Your task to perform on an android device: change the clock display to digital Image 0: 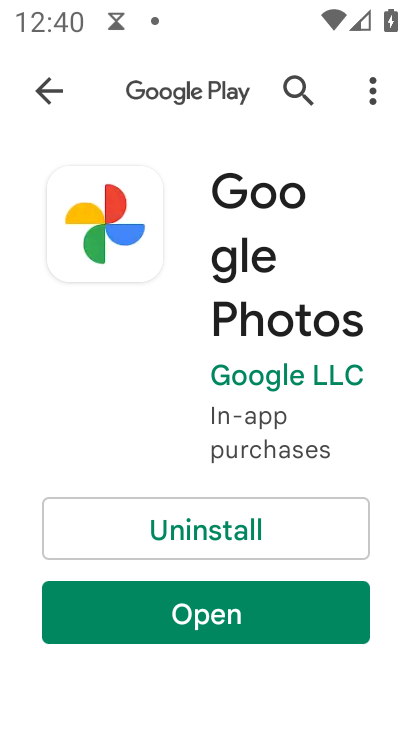
Step 0: press home button
Your task to perform on an android device: change the clock display to digital Image 1: 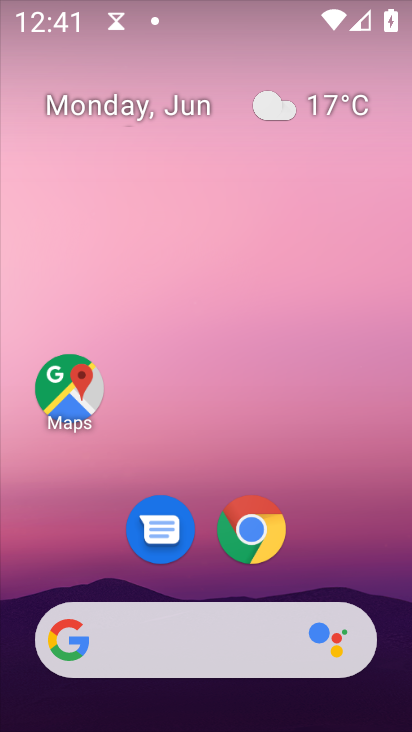
Step 1: drag from (343, 561) to (331, 5)
Your task to perform on an android device: change the clock display to digital Image 2: 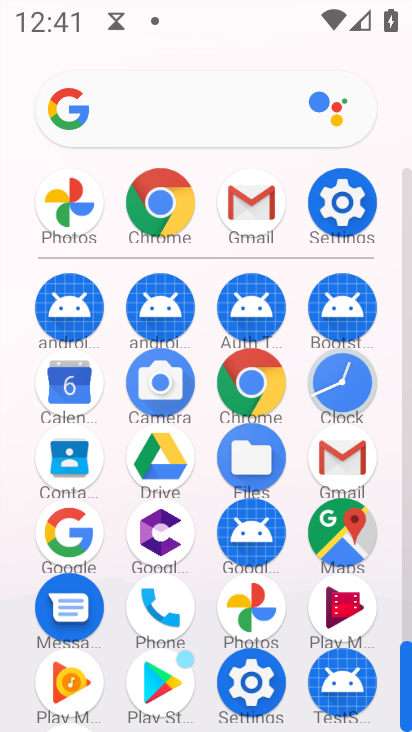
Step 2: click (331, 383)
Your task to perform on an android device: change the clock display to digital Image 3: 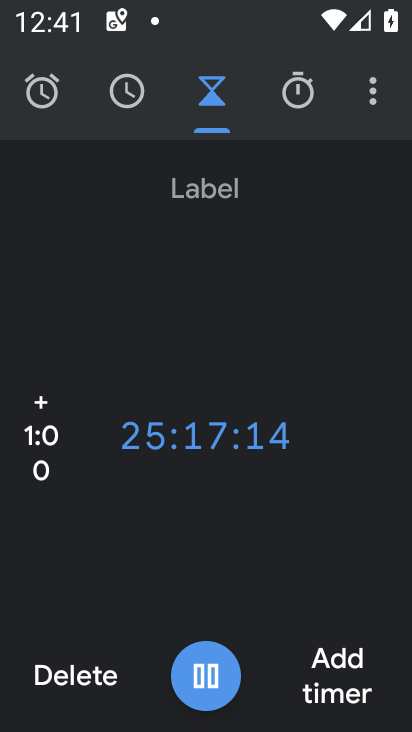
Step 3: click (386, 92)
Your task to perform on an android device: change the clock display to digital Image 4: 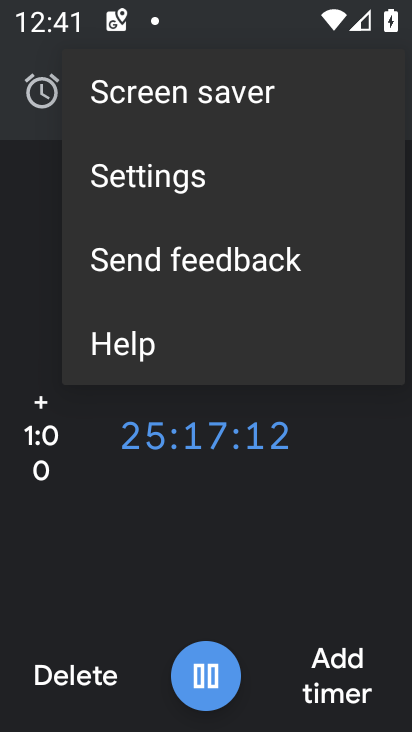
Step 4: click (141, 190)
Your task to perform on an android device: change the clock display to digital Image 5: 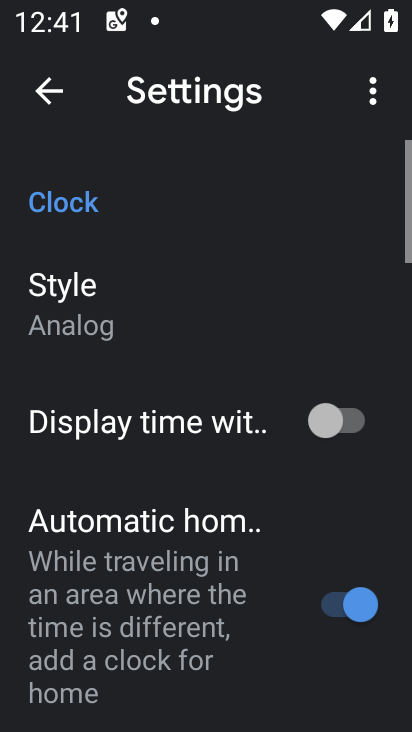
Step 5: click (70, 318)
Your task to perform on an android device: change the clock display to digital Image 6: 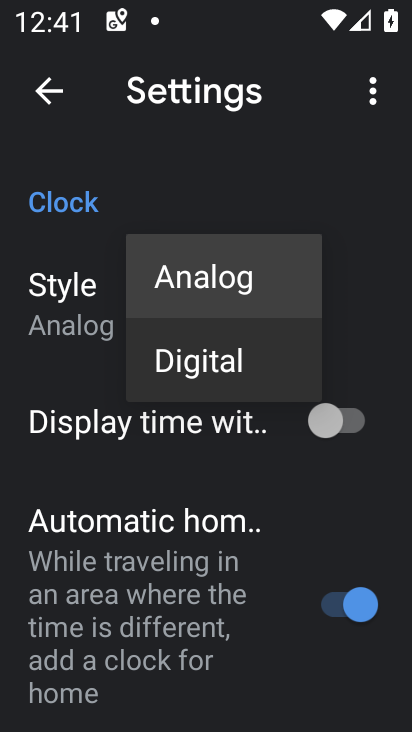
Step 6: click (191, 355)
Your task to perform on an android device: change the clock display to digital Image 7: 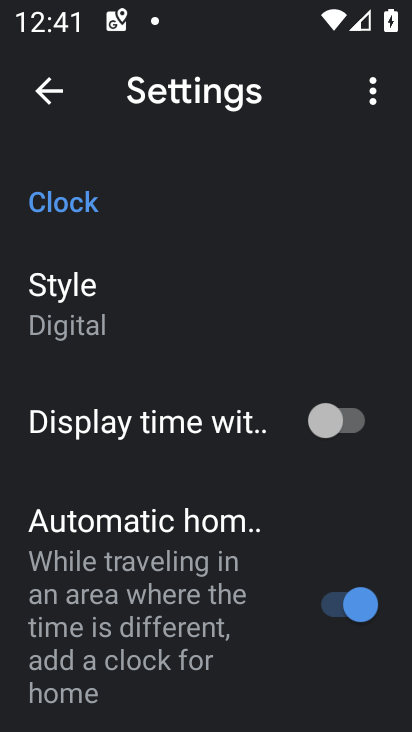
Step 7: task complete